Your task to perform on an android device: turn on sleep mode Image 0: 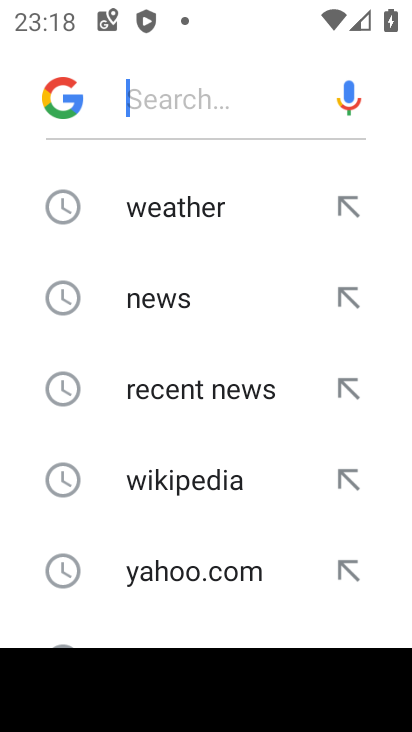
Step 0: press home button
Your task to perform on an android device: turn on sleep mode Image 1: 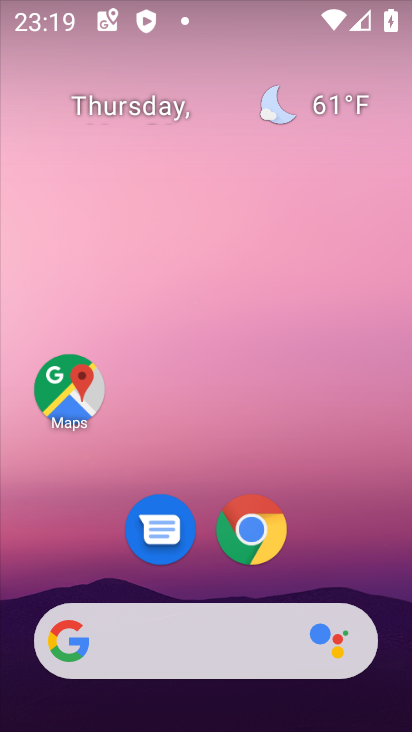
Step 1: drag from (319, 559) to (315, 90)
Your task to perform on an android device: turn on sleep mode Image 2: 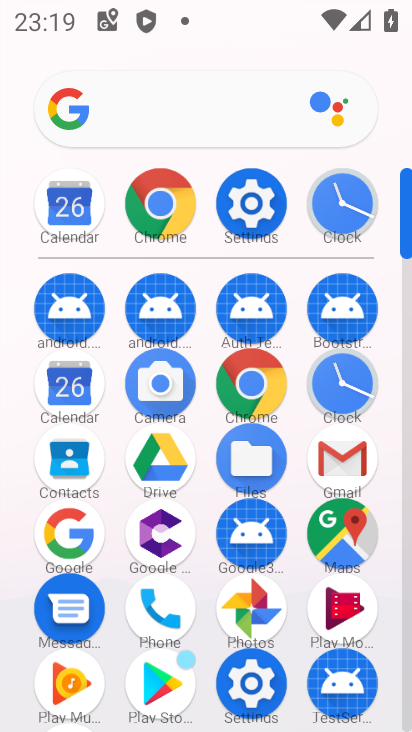
Step 2: click (247, 221)
Your task to perform on an android device: turn on sleep mode Image 3: 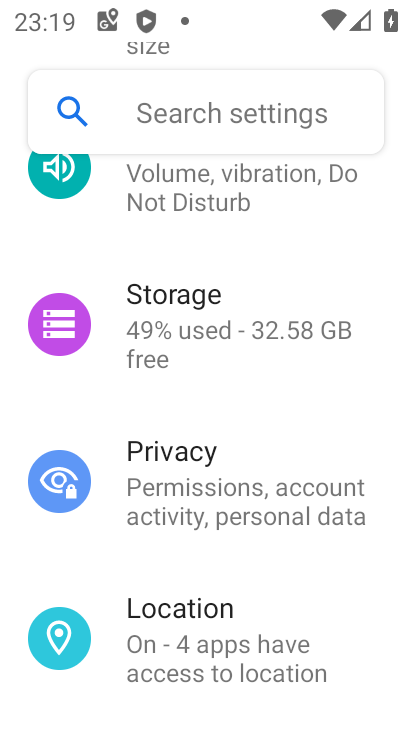
Step 3: drag from (214, 300) to (205, 619)
Your task to perform on an android device: turn on sleep mode Image 4: 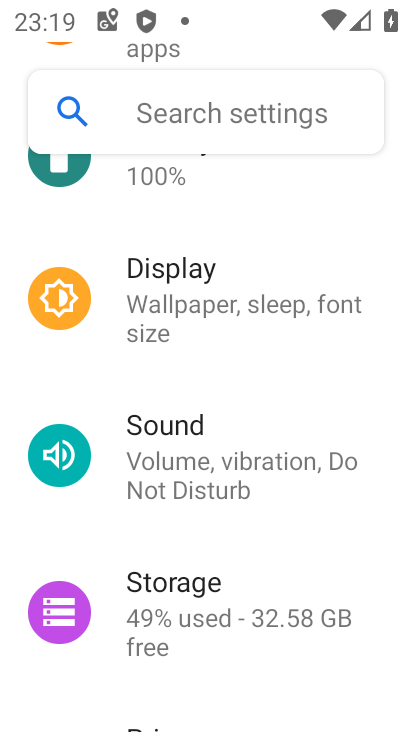
Step 4: drag from (205, 476) to (192, 617)
Your task to perform on an android device: turn on sleep mode Image 5: 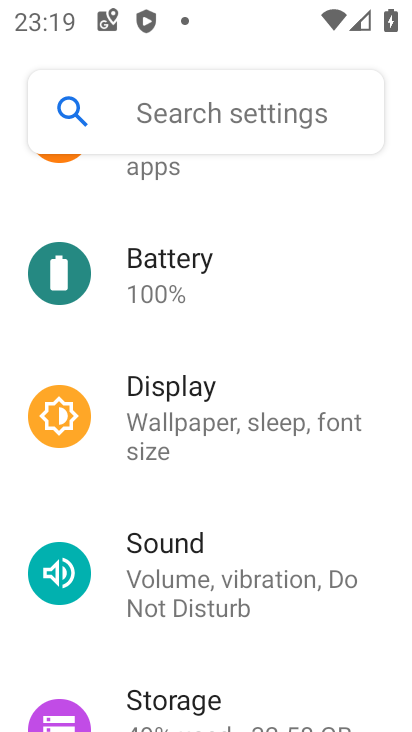
Step 5: click (209, 441)
Your task to perform on an android device: turn on sleep mode Image 6: 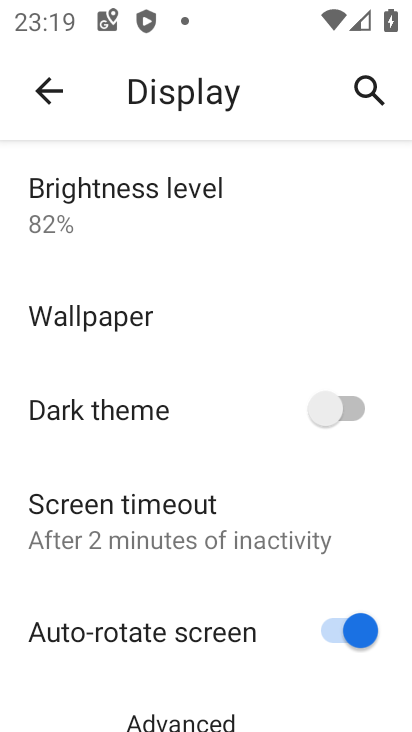
Step 6: click (214, 536)
Your task to perform on an android device: turn on sleep mode Image 7: 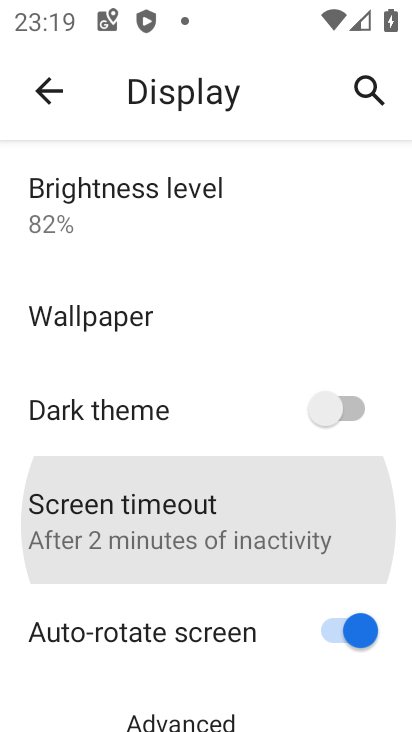
Step 7: click (214, 536)
Your task to perform on an android device: turn on sleep mode Image 8: 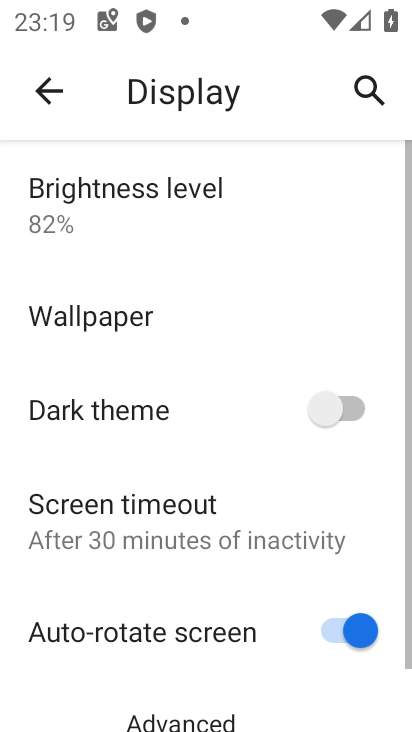
Step 8: task complete